Your task to perform on an android device: Search for seafood restaurants on Google Maps Image 0: 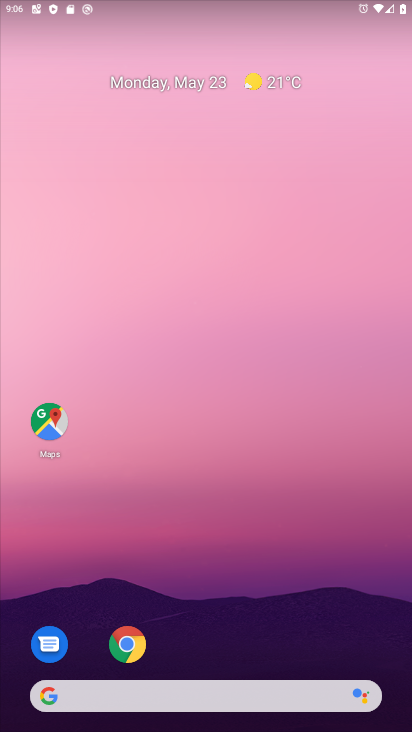
Step 0: drag from (211, 731) to (201, 117)
Your task to perform on an android device: Search for seafood restaurants on Google Maps Image 1: 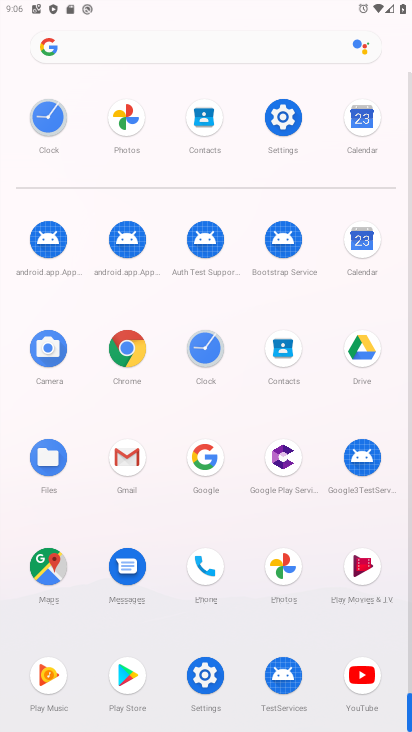
Step 1: click (56, 562)
Your task to perform on an android device: Search for seafood restaurants on Google Maps Image 2: 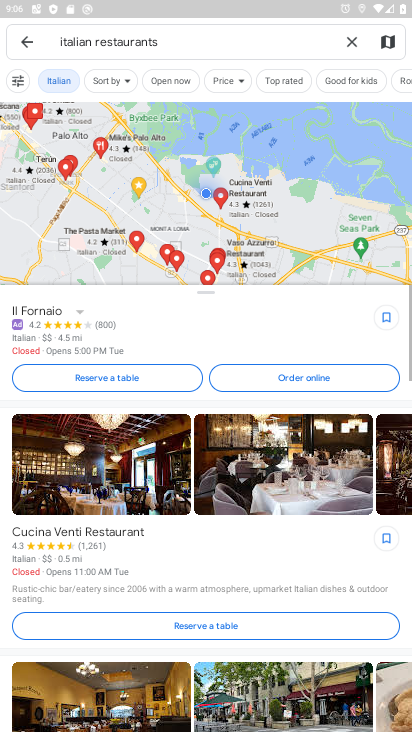
Step 2: click (345, 38)
Your task to perform on an android device: Search for seafood restaurants on Google Maps Image 3: 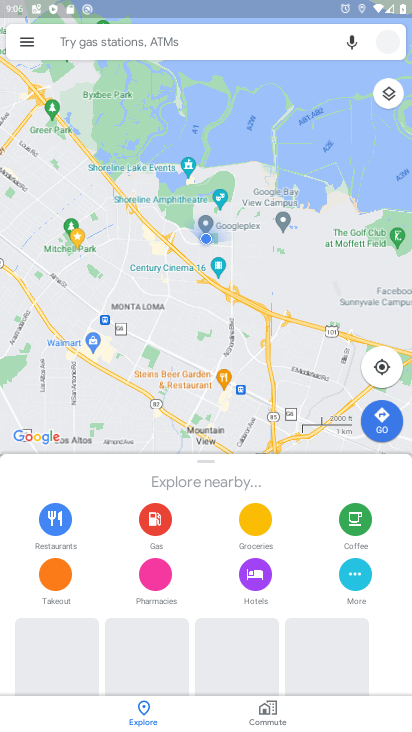
Step 3: click (227, 48)
Your task to perform on an android device: Search for seafood restaurants on Google Maps Image 4: 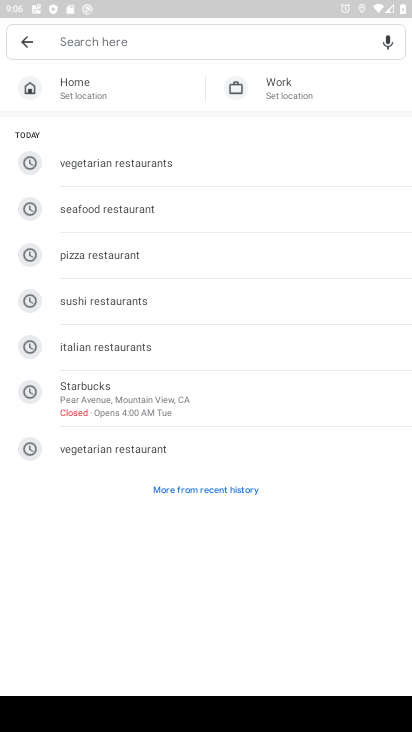
Step 4: click (118, 200)
Your task to perform on an android device: Search for seafood restaurants on Google Maps Image 5: 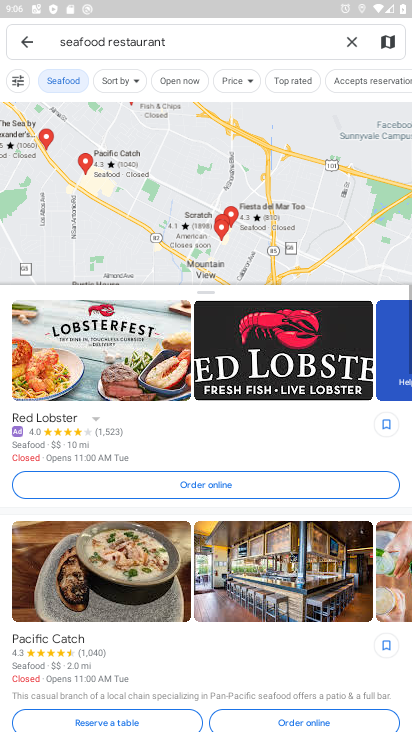
Step 5: task complete